Your task to perform on an android device: turn off translation in the chrome app Image 0: 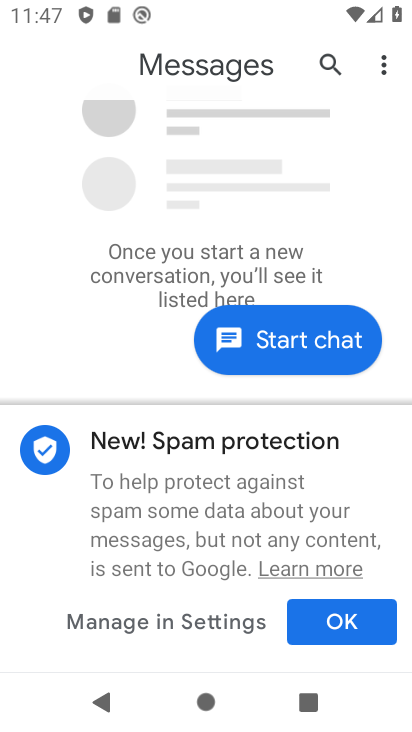
Step 0: press home button
Your task to perform on an android device: turn off translation in the chrome app Image 1: 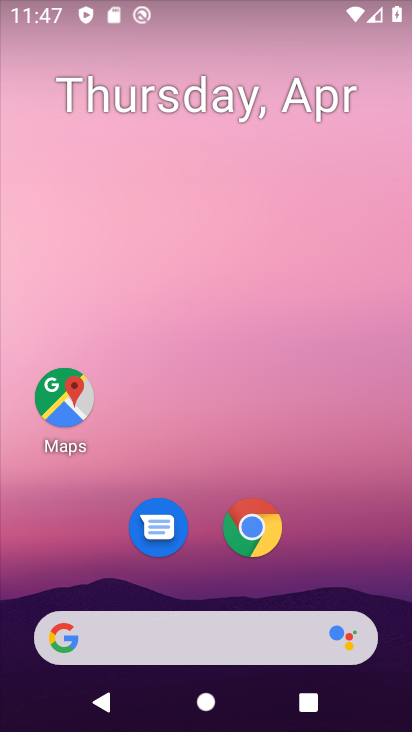
Step 1: press home button
Your task to perform on an android device: turn off translation in the chrome app Image 2: 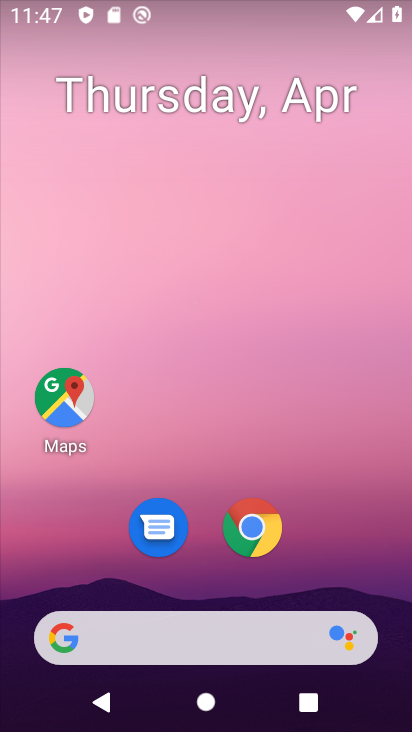
Step 2: click (245, 519)
Your task to perform on an android device: turn off translation in the chrome app Image 3: 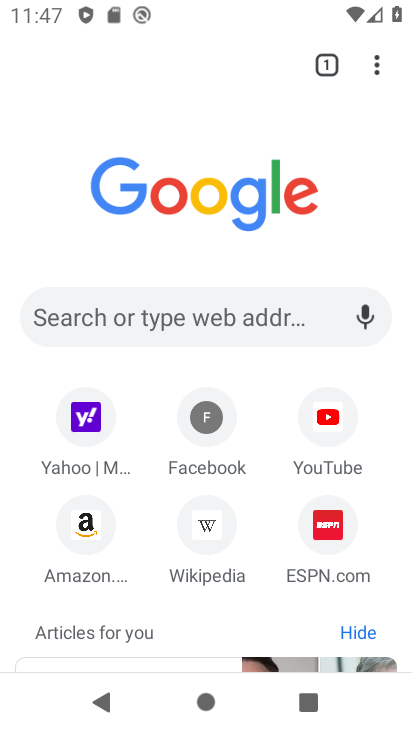
Step 3: click (369, 72)
Your task to perform on an android device: turn off translation in the chrome app Image 4: 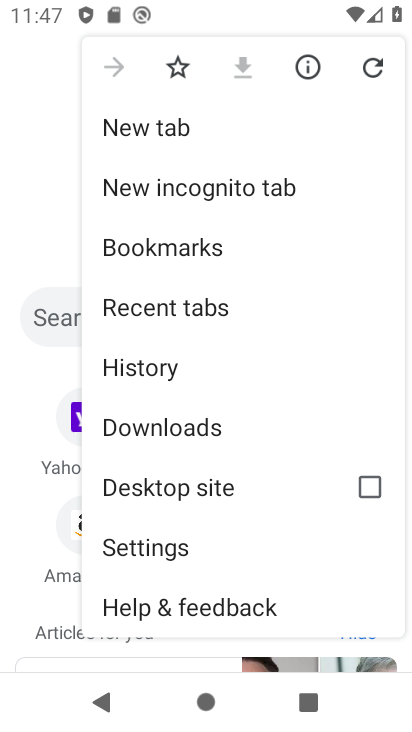
Step 4: click (173, 542)
Your task to perform on an android device: turn off translation in the chrome app Image 5: 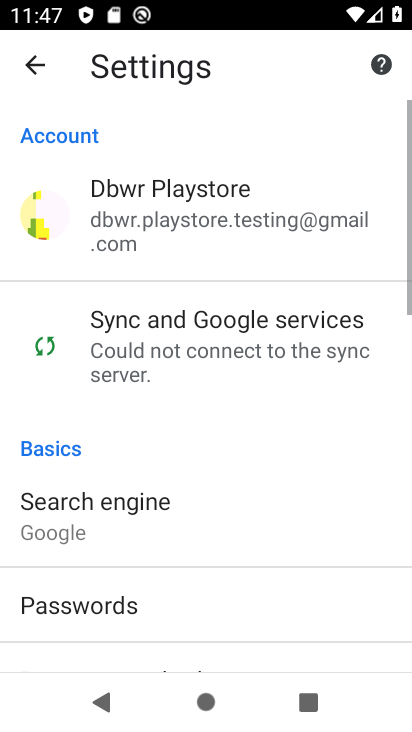
Step 5: drag from (175, 595) to (202, 271)
Your task to perform on an android device: turn off translation in the chrome app Image 6: 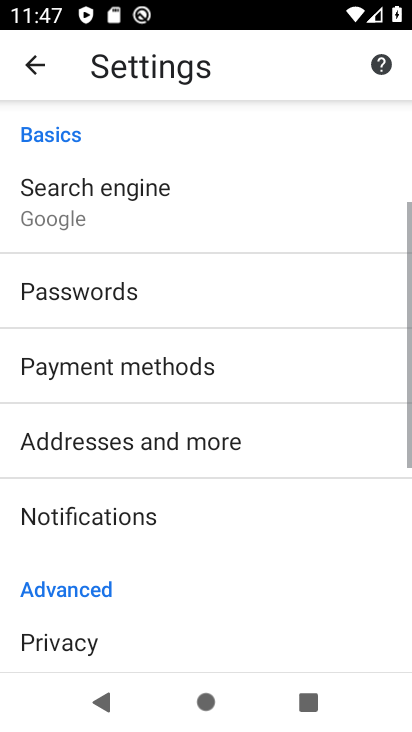
Step 6: drag from (218, 585) to (226, 270)
Your task to perform on an android device: turn off translation in the chrome app Image 7: 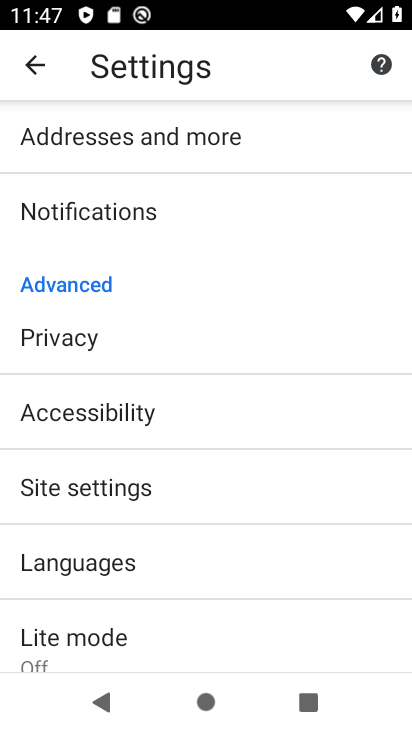
Step 7: click (140, 557)
Your task to perform on an android device: turn off translation in the chrome app Image 8: 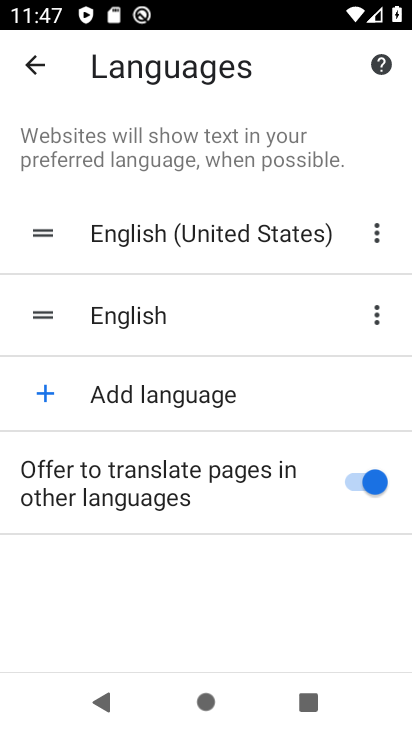
Step 8: click (345, 476)
Your task to perform on an android device: turn off translation in the chrome app Image 9: 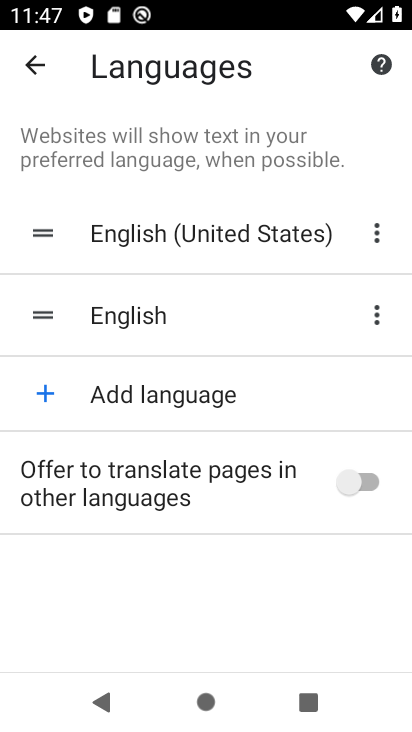
Step 9: task complete